Your task to perform on an android device: Go to Maps Image 0: 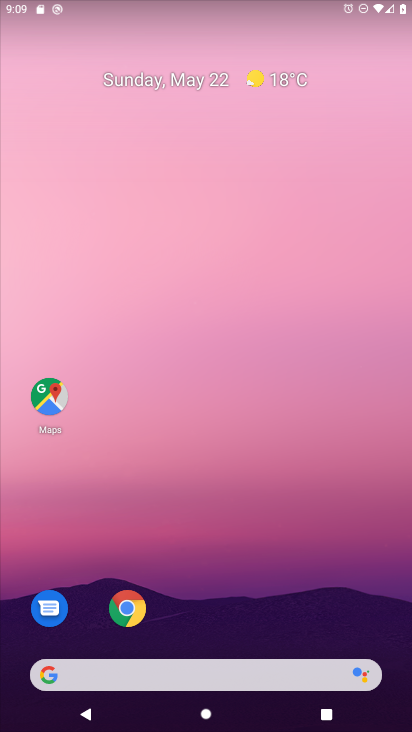
Step 0: drag from (228, 644) to (225, 118)
Your task to perform on an android device: Go to Maps Image 1: 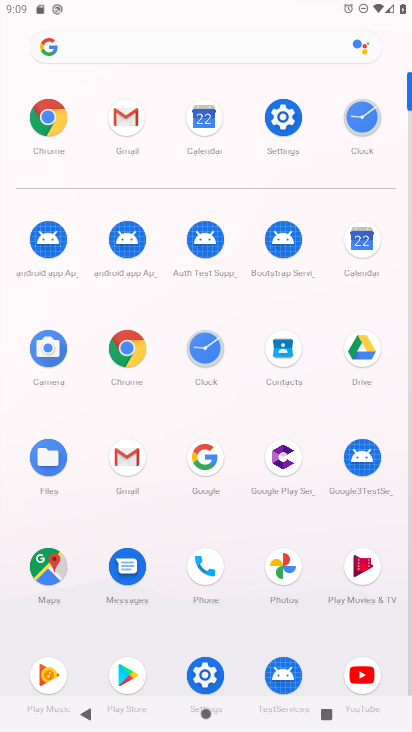
Step 1: click (50, 564)
Your task to perform on an android device: Go to Maps Image 2: 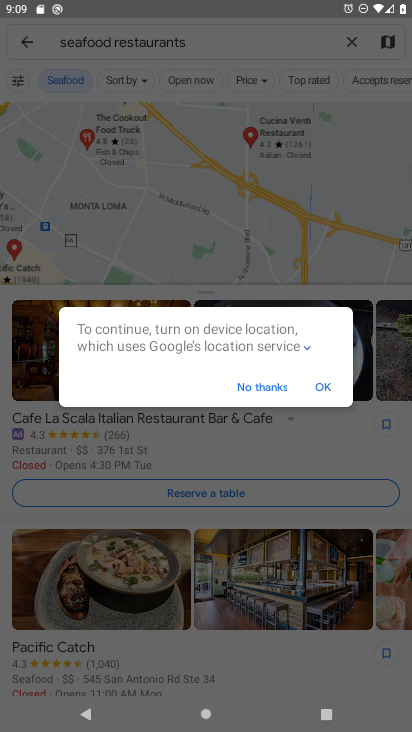
Step 2: click (262, 381)
Your task to perform on an android device: Go to Maps Image 3: 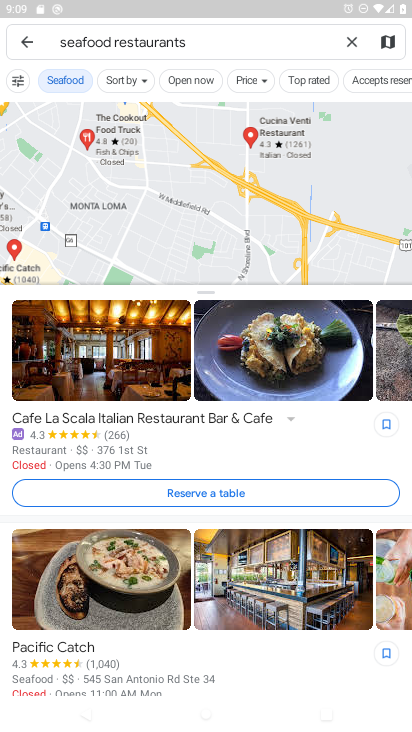
Step 3: task complete